Your task to perform on an android device: Search for seafood restaurants on Google Maps Image 0: 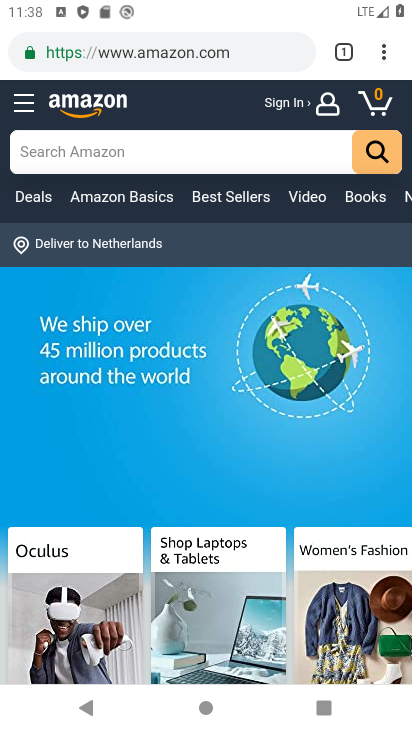
Step 0: press home button
Your task to perform on an android device: Search for seafood restaurants on Google Maps Image 1: 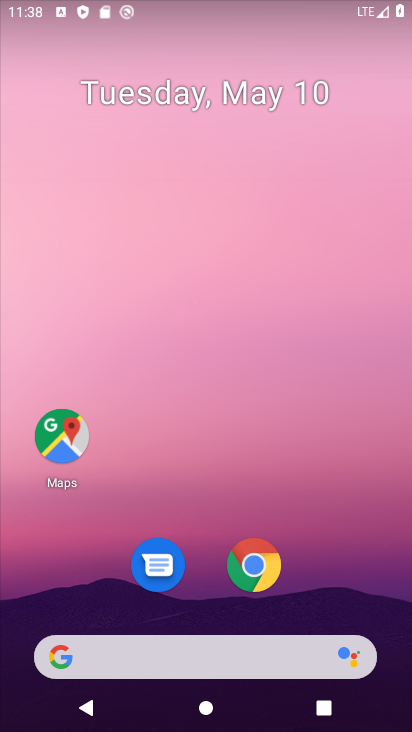
Step 1: click (48, 396)
Your task to perform on an android device: Search for seafood restaurants on Google Maps Image 2: 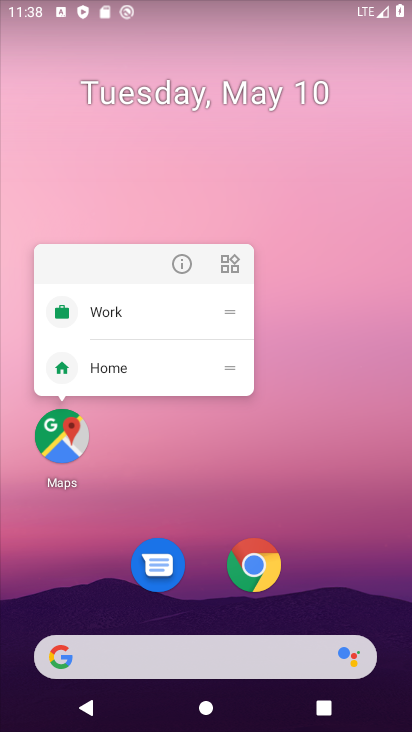
Step 2: click (64, 426)
Your task to perform on an android device: Search for seafood restaurants on Google Maps Image 3: 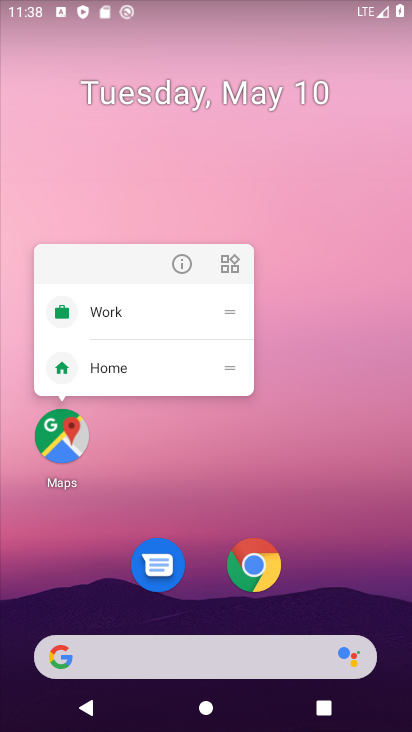
Step 3: click (62, 429)
Your task to perform on an android device: Search for seafood restaurants on Google Maps Image 4: 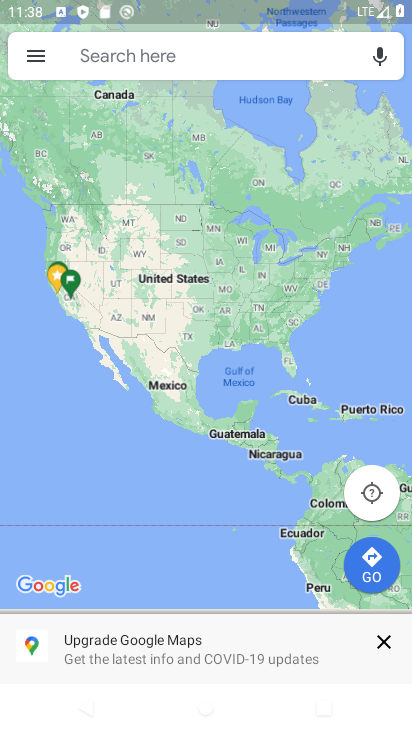
Step 4: click (175, 51)
Your task to perform on an android device: Search for seafood restaurants on Google Maps Image 5: 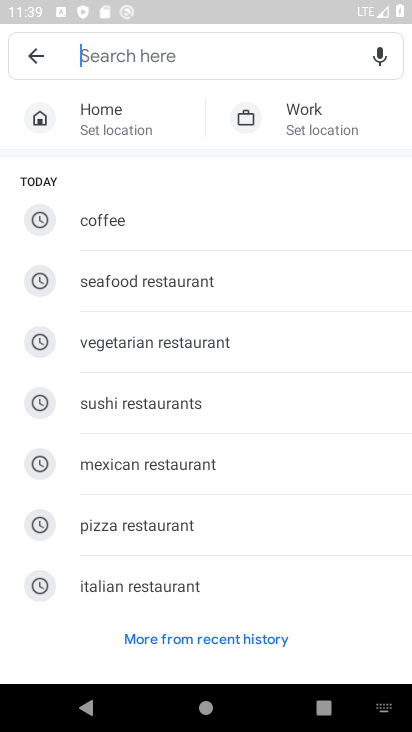
Step 5: click (123, 276)
Your task to perform on an android device: Search for seafood restaurants on Google Maps Image 6: 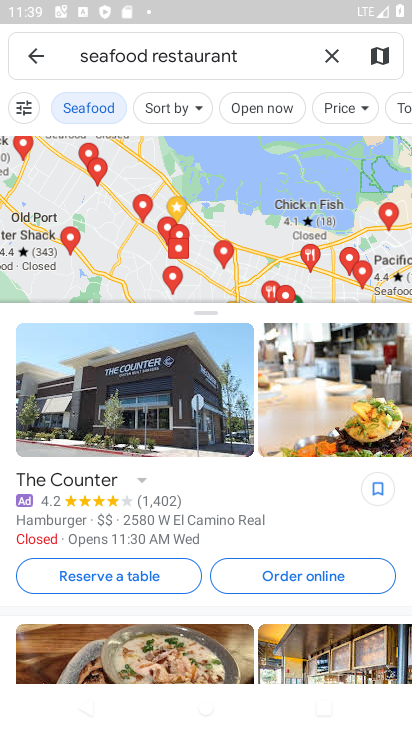
Step 6: task complete